Your task to perform on an android device: Go to battery settings Image 0: 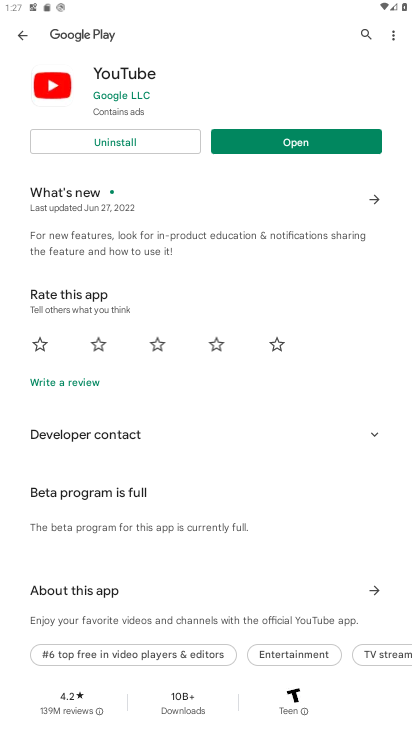
Step 0: press home button
Your task to perform on an android device: Go to battery settings Image 1: 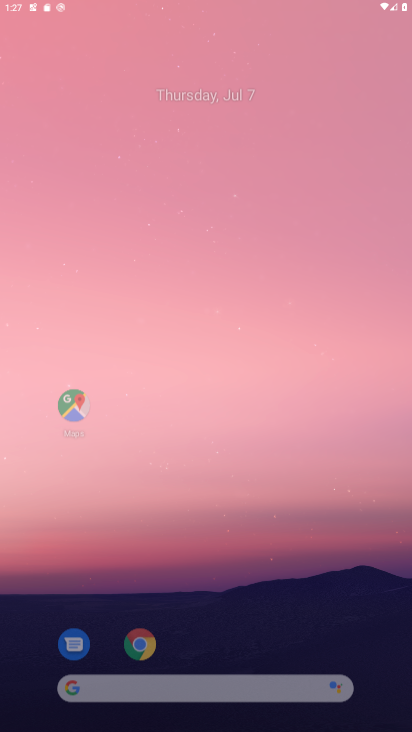
Step 1: drag from (190, 497) to (195, 0)
Your task to perform on an android device: Go to battery settings Image 2: 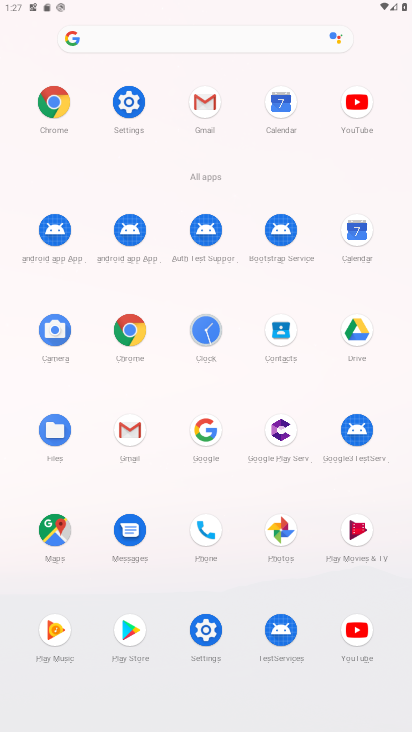
Step 2: click (121, 98)
Your task to perform on an android device: Go to battery settings Image 3: 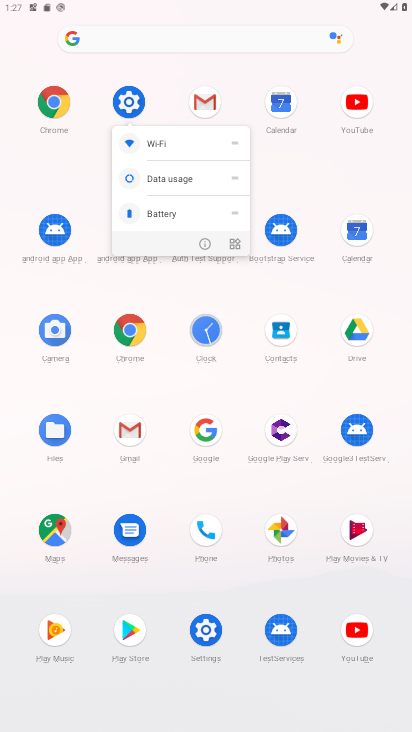
Step 3: click (208, 241)
Your task to perform on an android device: Go to battery settings Image 4: 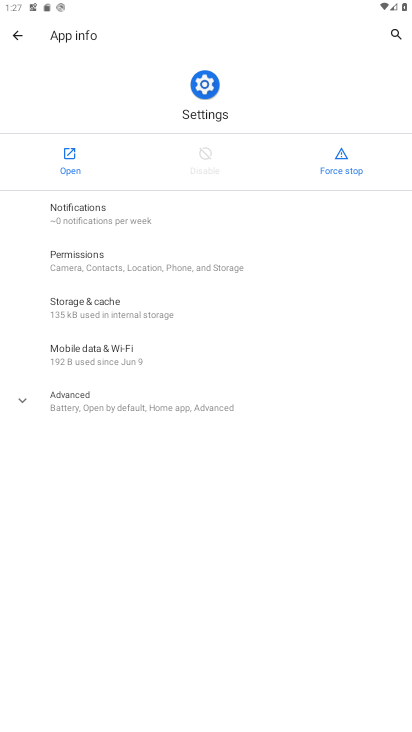
Step 4: click (77, 160)
Your task to perform on an android device: Go to battery settings Image 5: 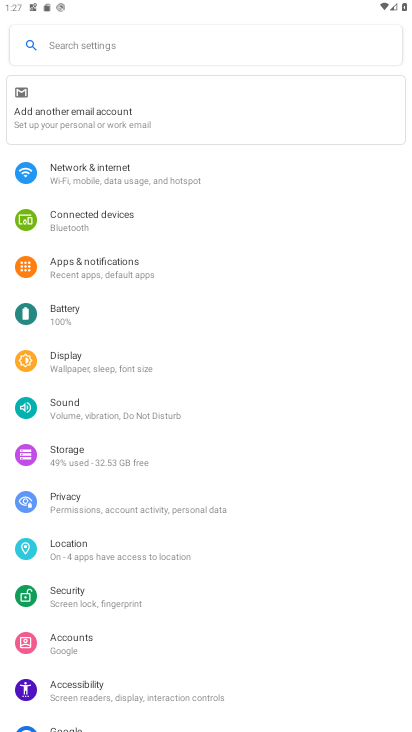
Step 5: drag from (102, 563) to (159, 253)
Your task to perform on an android device: Go to battery settings Image 6: 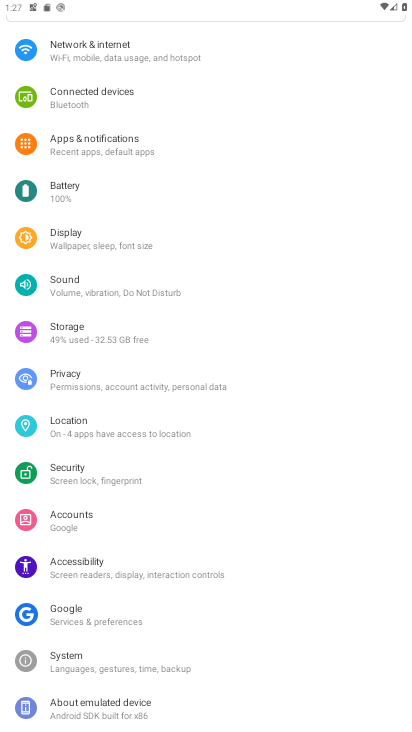
Step 6: drag from (154, 115) to (236, 473)
Your task to perform on an android device: Go to battery settings Image 7: 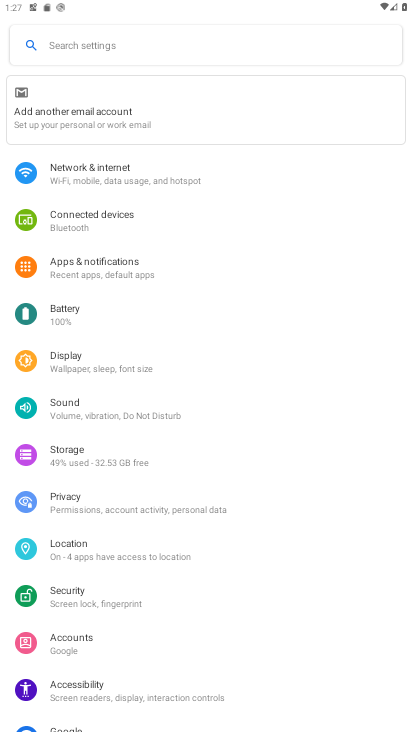
Step 7: click (55, 308)
Your task to perform on an android device: Go to battery settings Image 8: 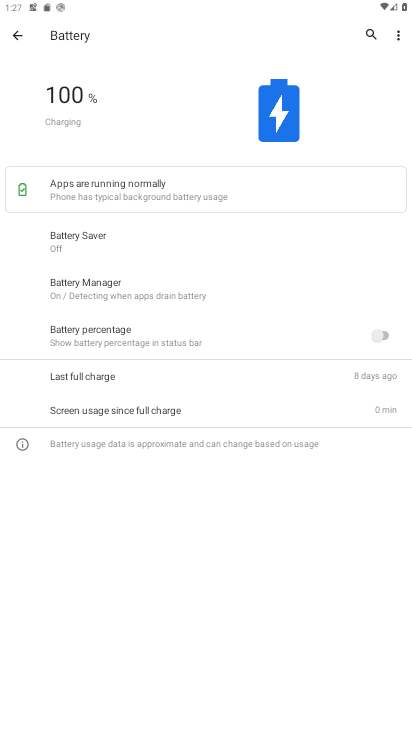
Step 8: click (397, 30)
Your task to perform on an android device: Go to battery settings Image 9: 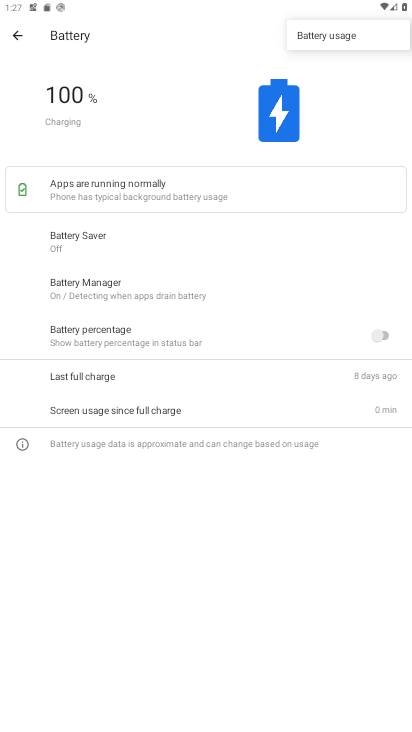
Step 9: drag from (227, 194) to (217, 364)
Your task to perform on an android device: Go to battery settings Image 10: 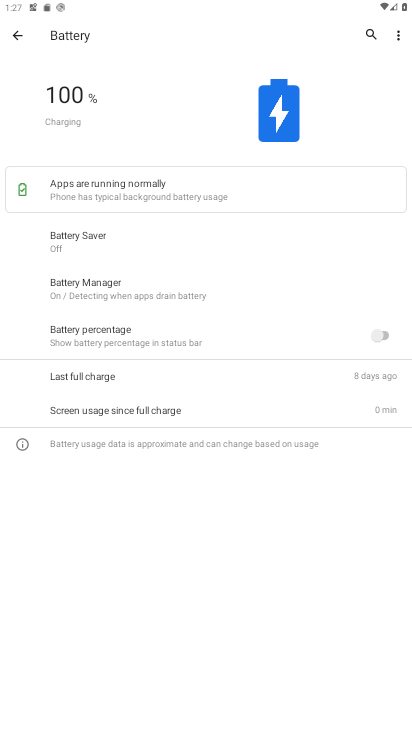
Step 10: drag from (222, 343) to (267, 58)
Your task to perform on an android device: Go to battery settings Image 11: 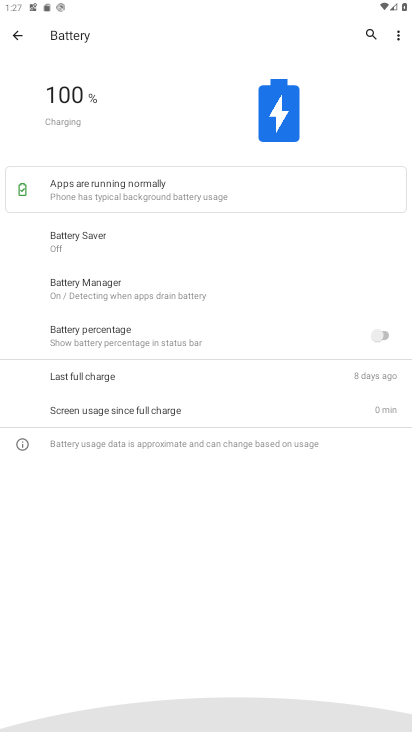
Step 11: click (152, 99)
Your task to perform on an android device: Go to battery settings Image 12: 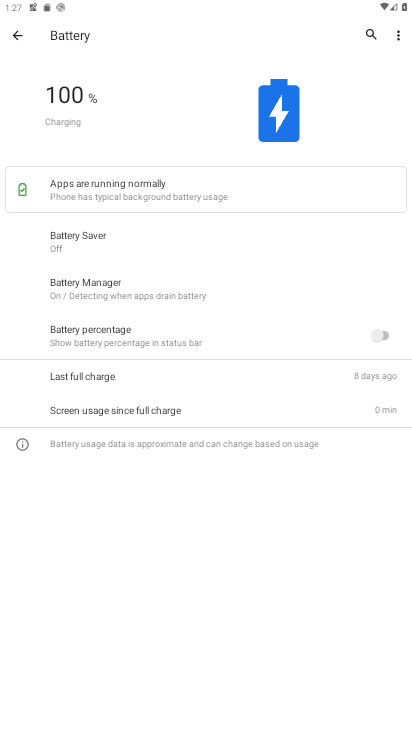
Step 12: task complete